Your task to perform on an android device: toggle javascript in the chrome app Image 0: 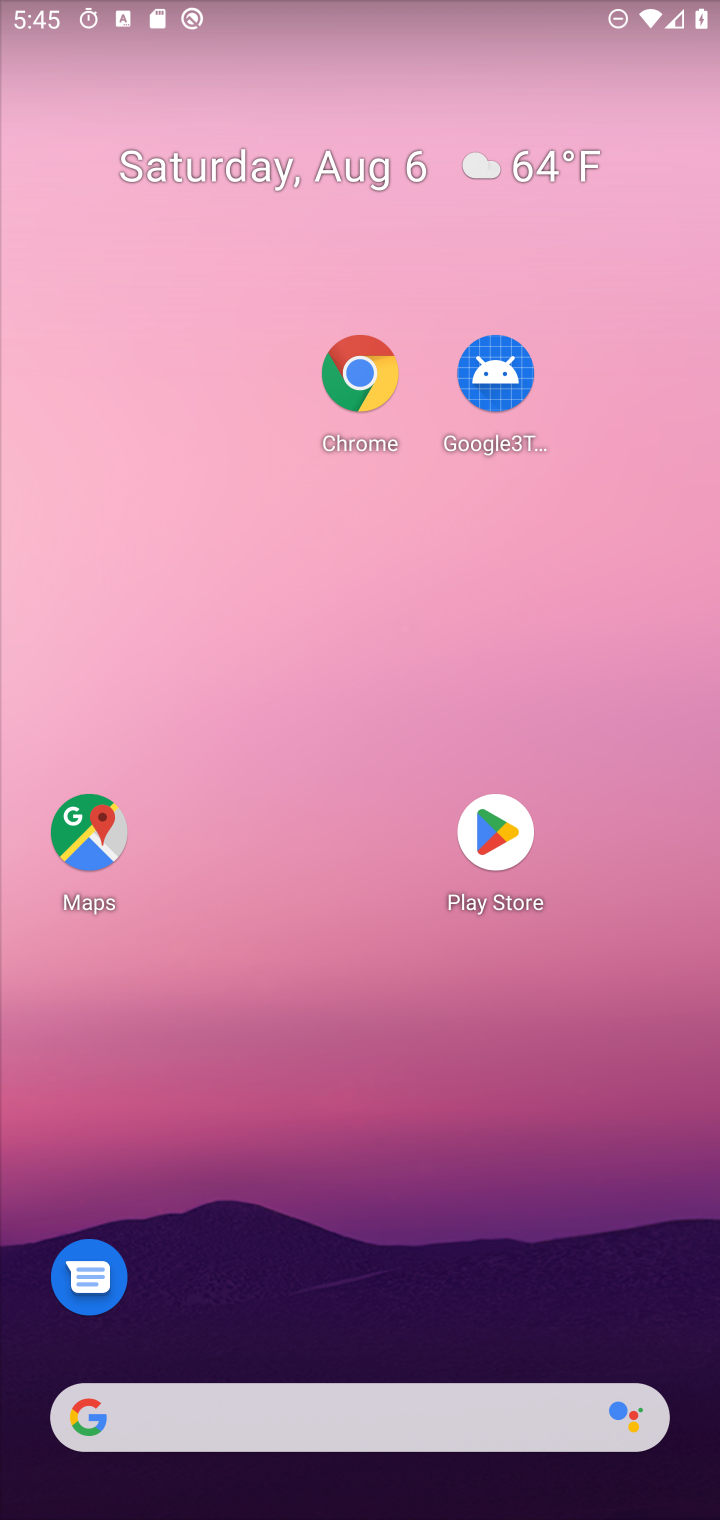
Step 0: drag from (304, 1431) to (124, 748)
Your task to perform on an android device: toggle javascript in the chrome app Image 1: 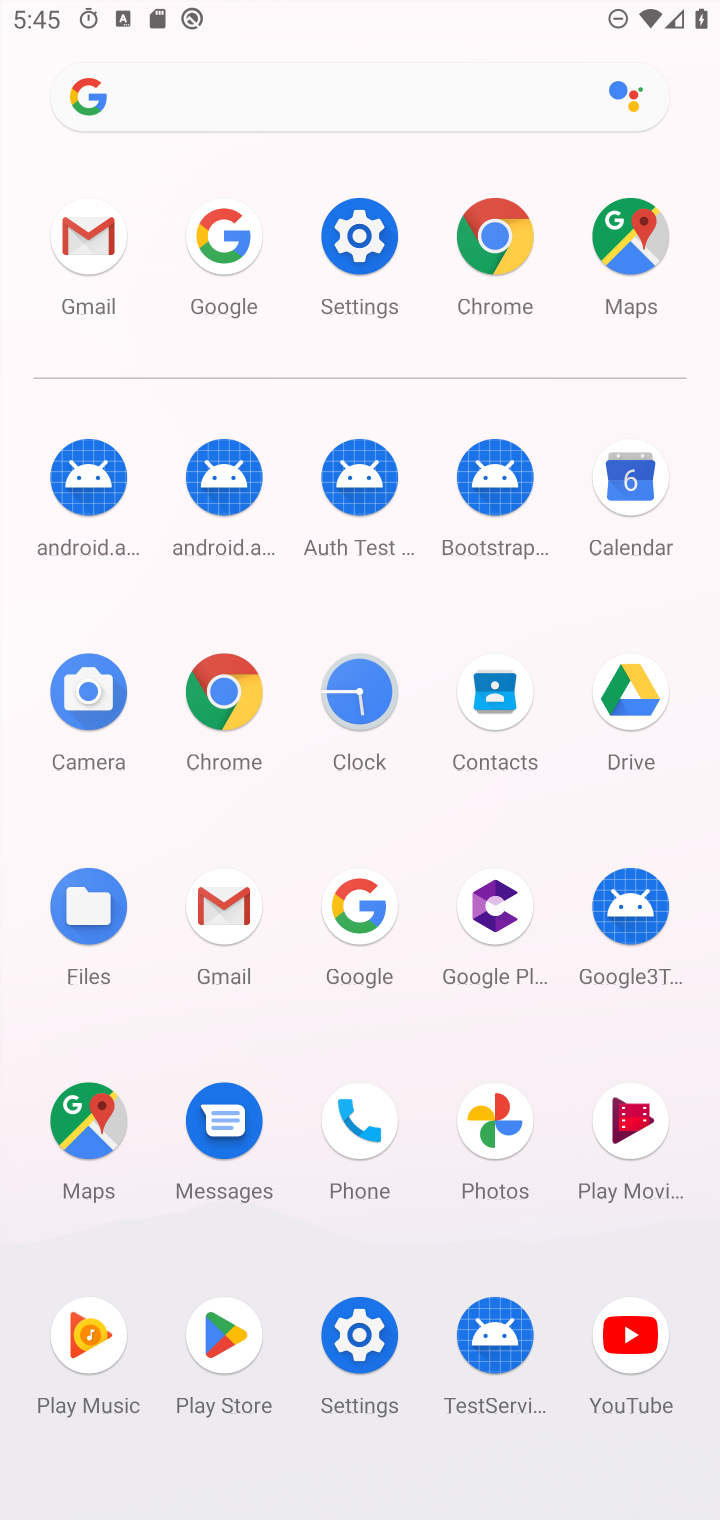
Step 1: click (229, 695)
Your task to perform on an android device: toggle javascript in the chrome app Image 2: 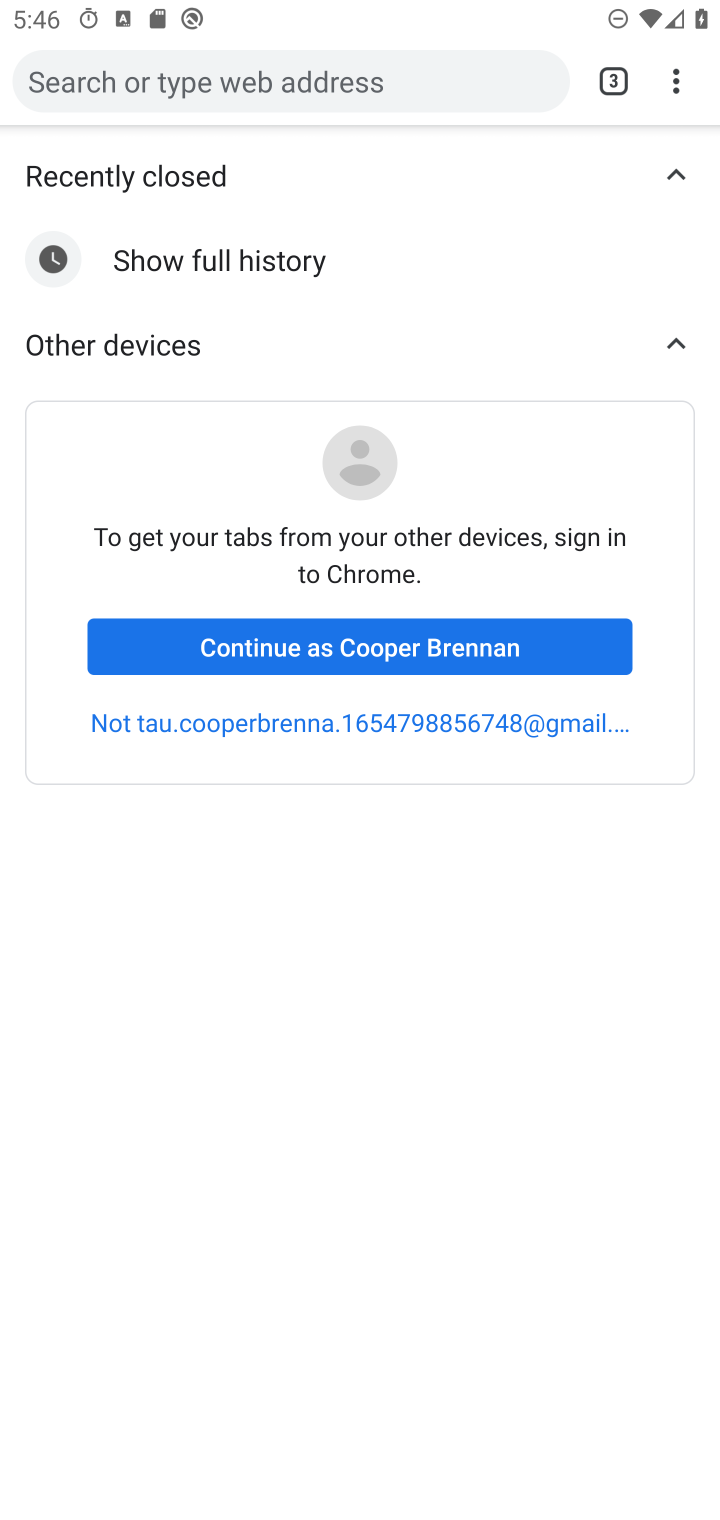
Step 2: click (672, 68)
Your task to perform on an android device: toggle javascript in the chrome app Image 3: 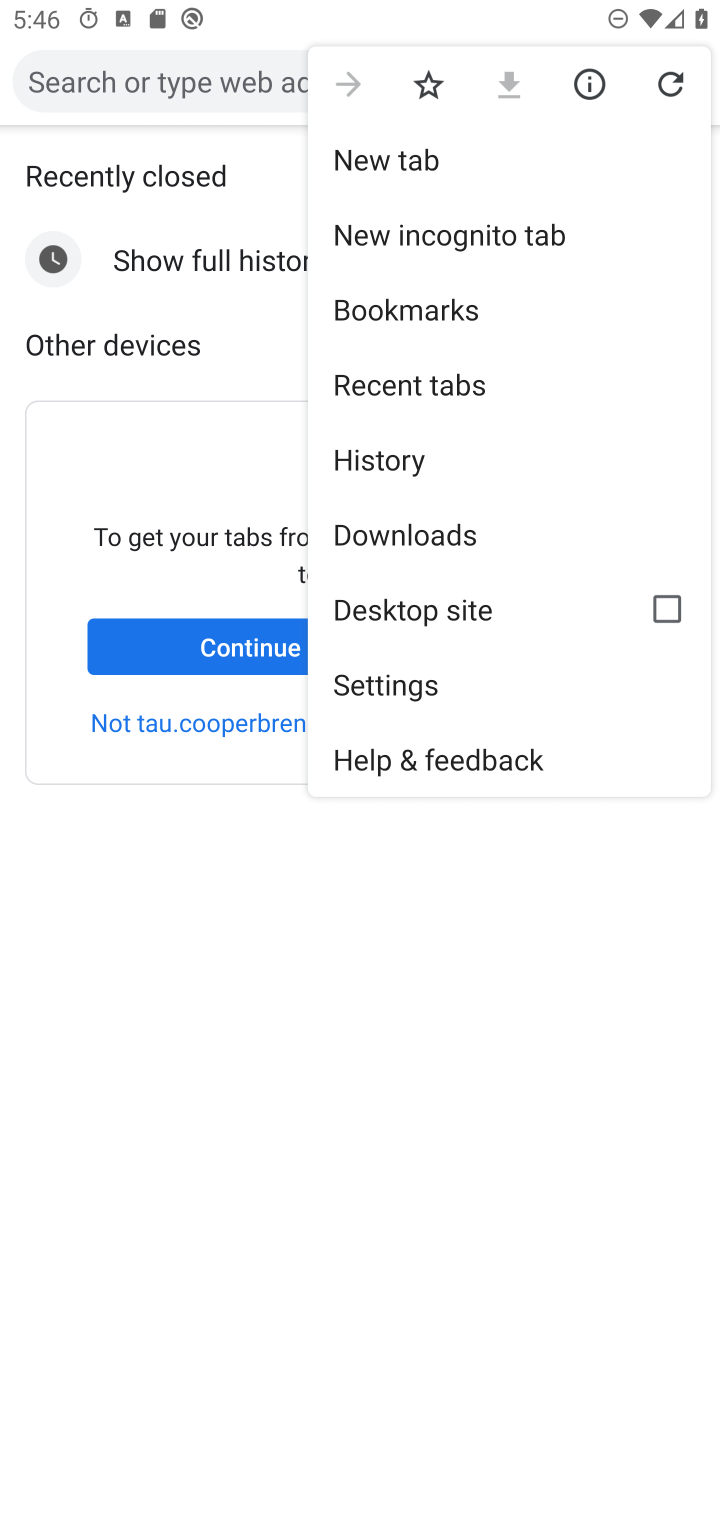
Step 3: click (394, 675)
Your task to perform on an android device: toggle javascript in the chrome app Image 4: 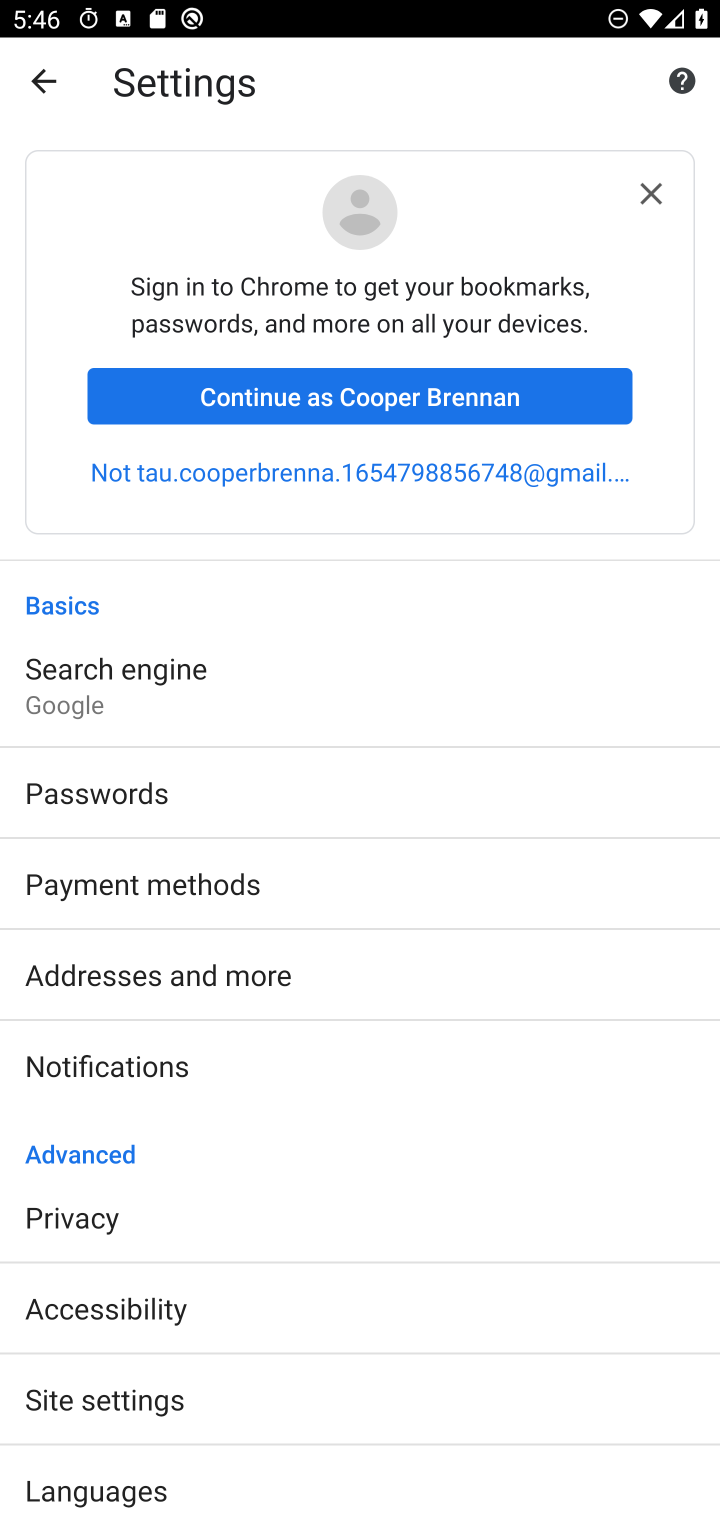
Step 4: click (162, 1401)
Your task to perform on an android device: toggle javascript in the chrome app Image 5: 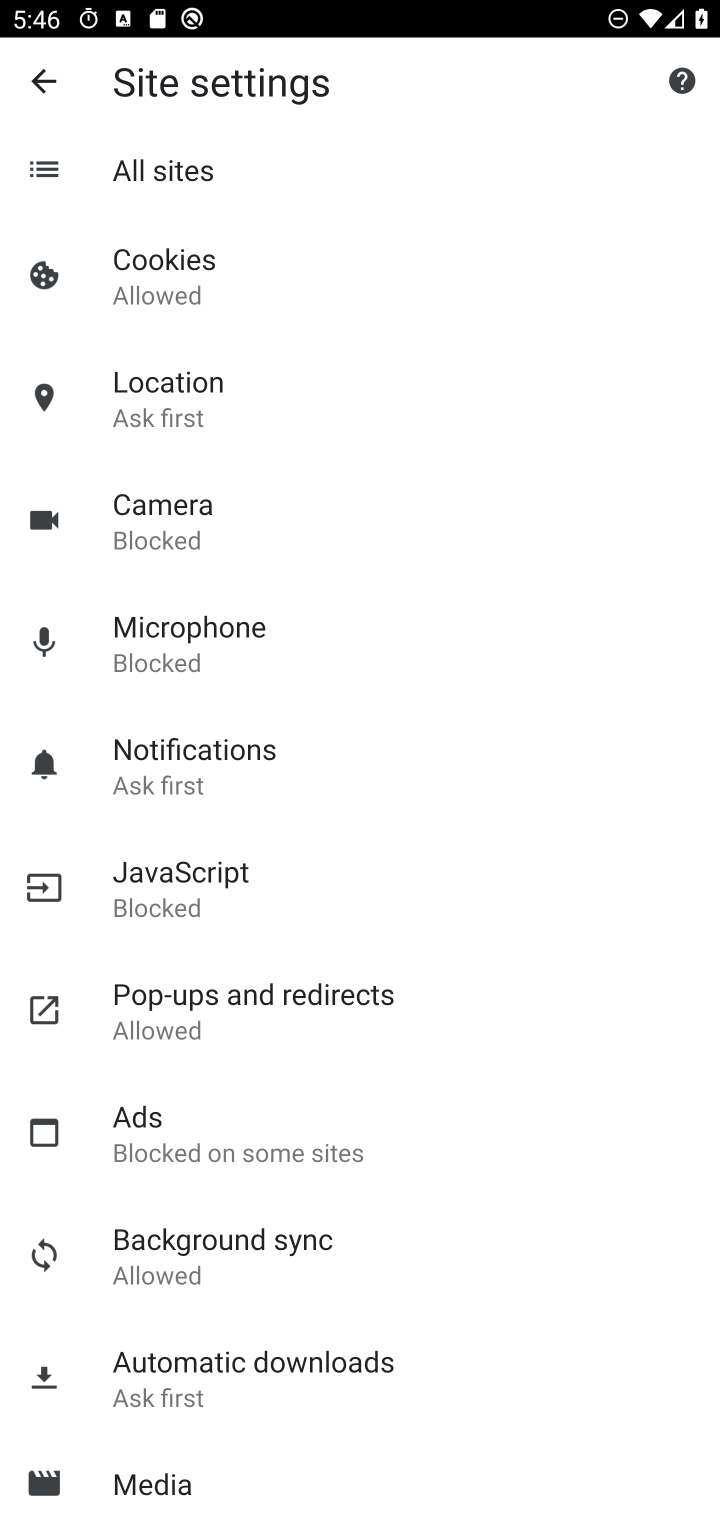
Step 5: click (257, 883)
Your task to perform on an android device: toggle javascript in the chrome app Image 6: 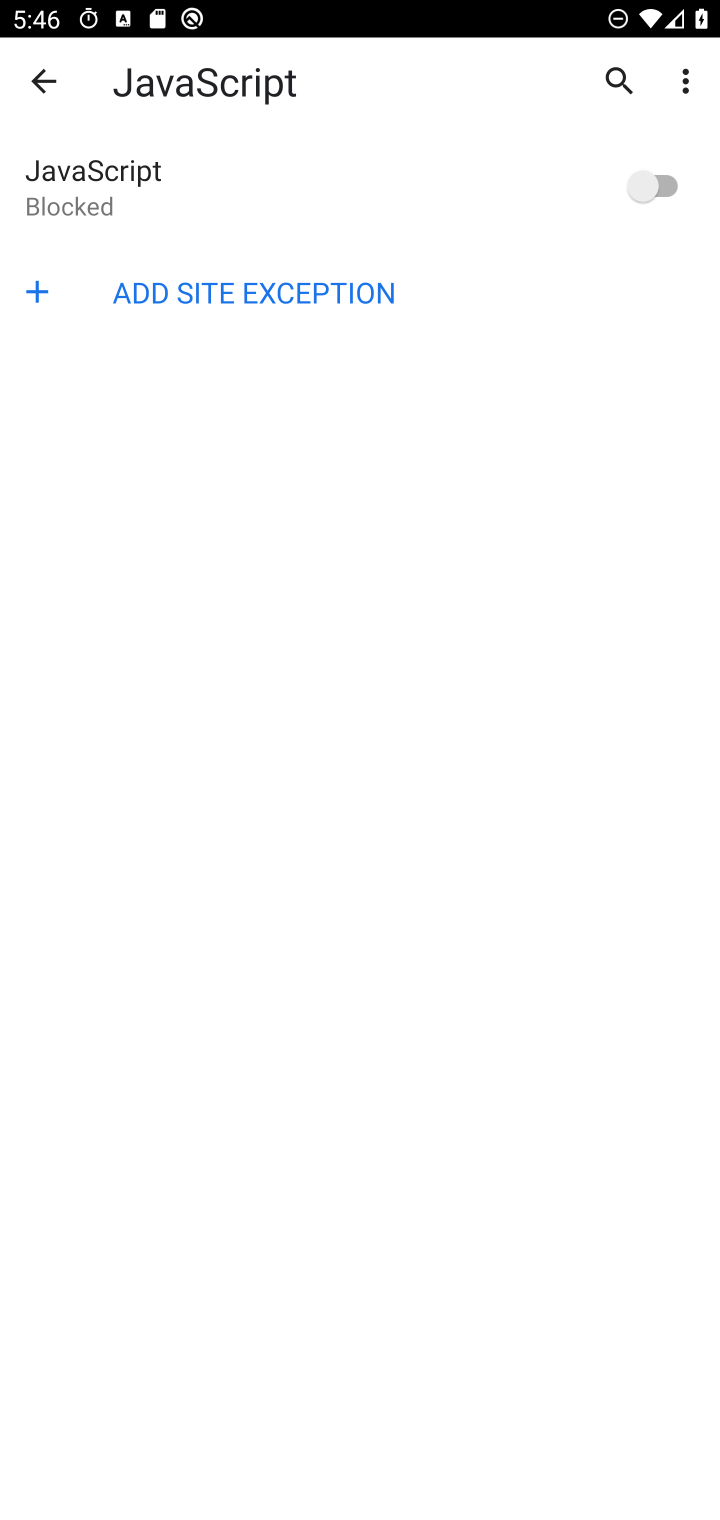
Step 6: click (672, 198)
Your task to perform on an android device: toggle javascript in the chrome app Image 7: 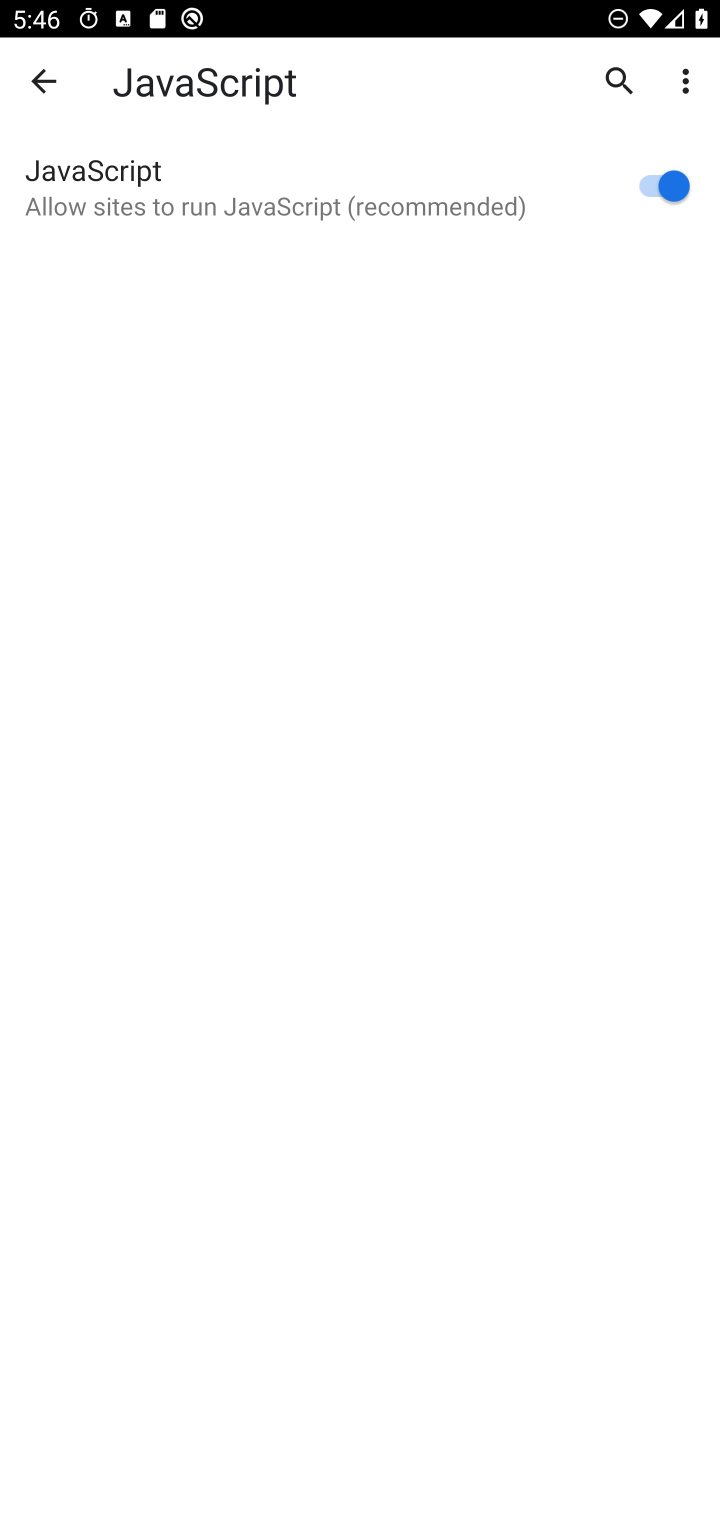
Step 7: task complete